Your task to perform on an android device: Search for vegetarian restaurants on Maps Image 0: 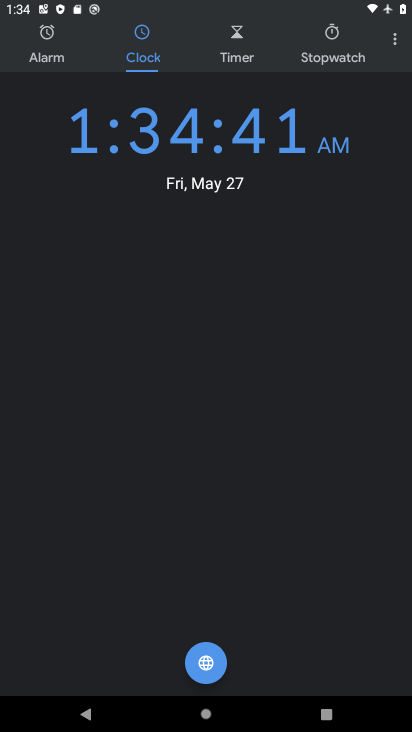
Step 0: press home button
Your task to perform on an android device: Search for vegetarian restaurants on Maps Image 1: 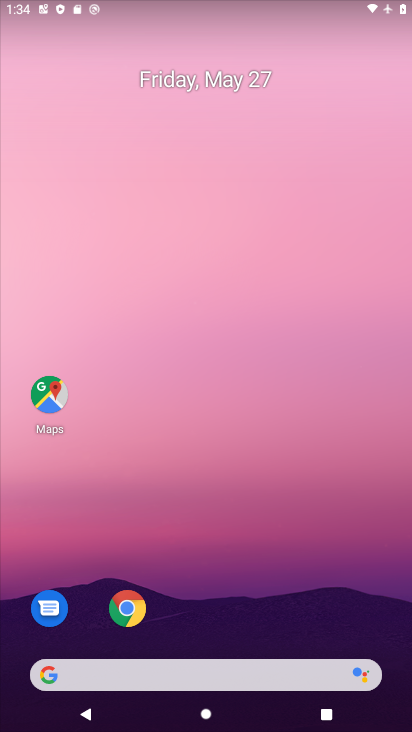
Step 1: click (53, 394)
Your task to perform on an android device: Search for vegetarian restaurants on Maps Image 2: 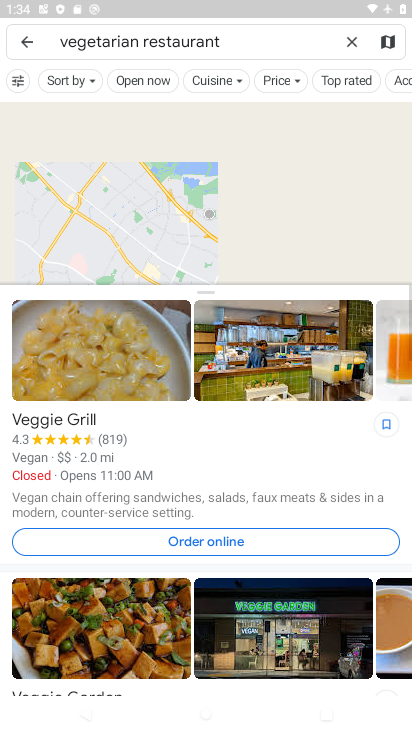
Step 2: task complete